Your task to perform on an android device: Go to notification settings Image 0: 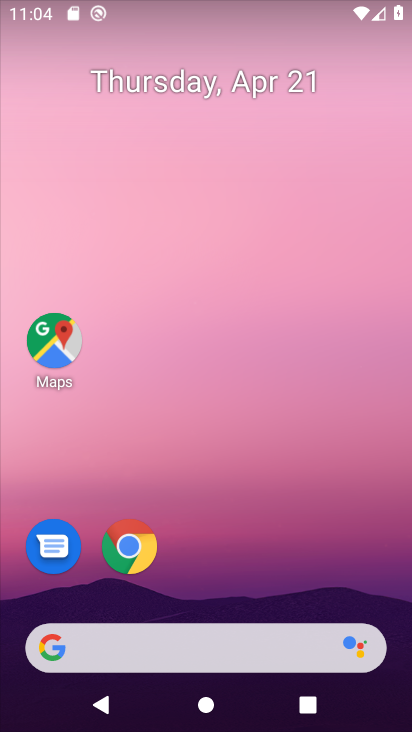
Step 0: drag from (254, 565) to (239, 94)
Your task to perform on an android device: Go to notification settings Image 1: 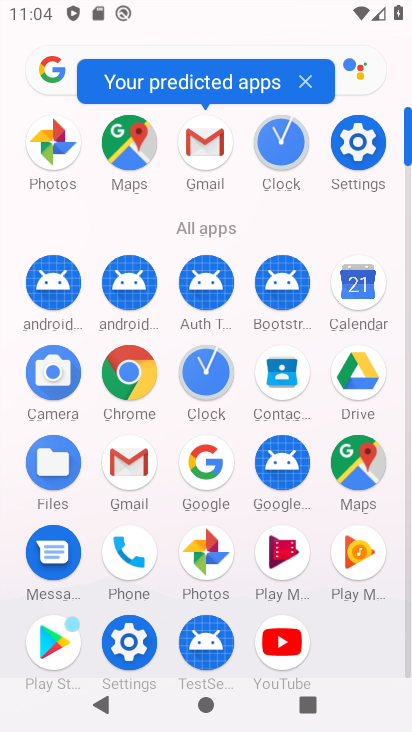
Step 1: click (367, 142)
Your task to perform on an android device: Go to notification settings Image 2: 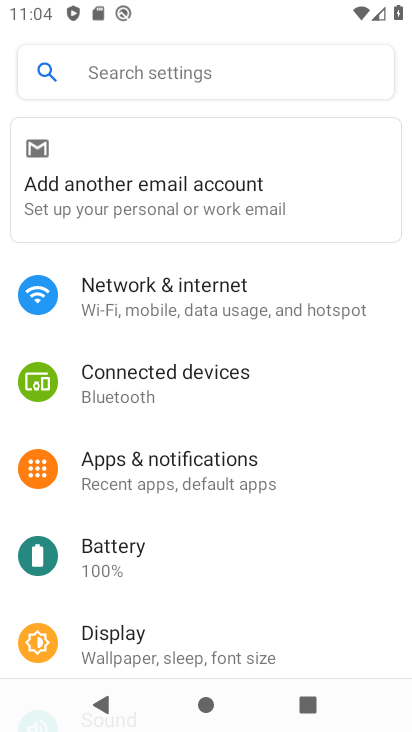
Step 2: drag from (267, 455) to (234, 200)
Your task to perform on an android device: Go to notification settings Image 3: 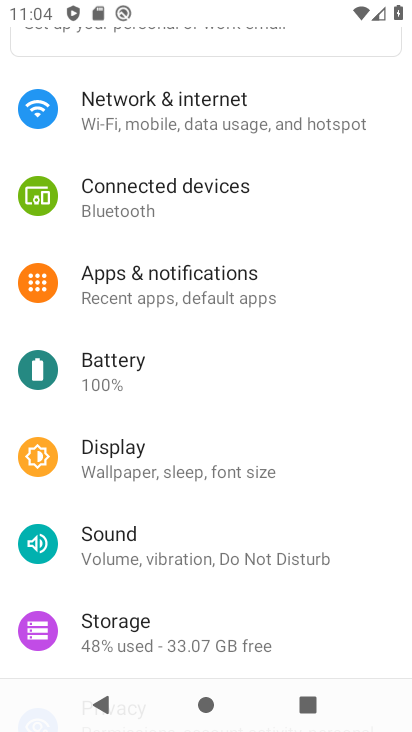
Step 3: drag from (244, 430) to (238, 347)
Your task to perform on an android device: Go to notification settings Image 4: 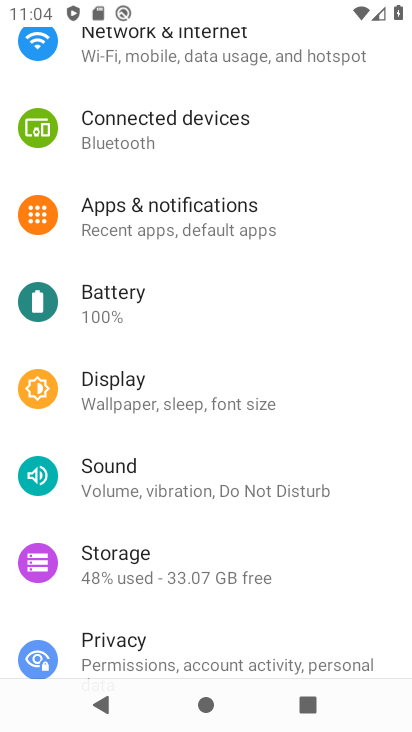
Step 4: click (183, 223)
Your task to perform on an android device: Go to notification settings Image 5: 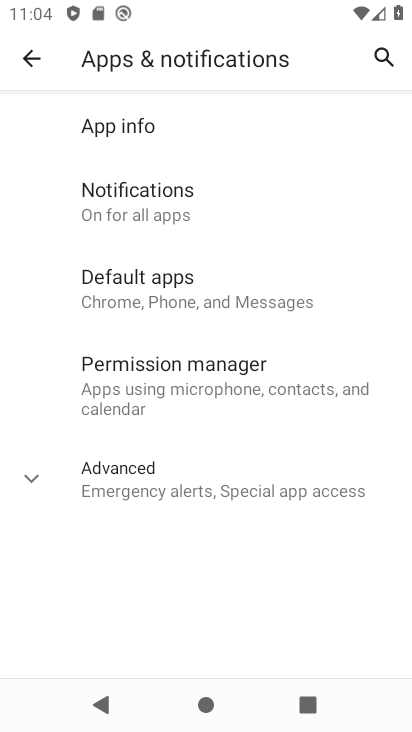
Step 5: click (146, 410)
Your task to perform on an android device: Go to notification settings Image 6: 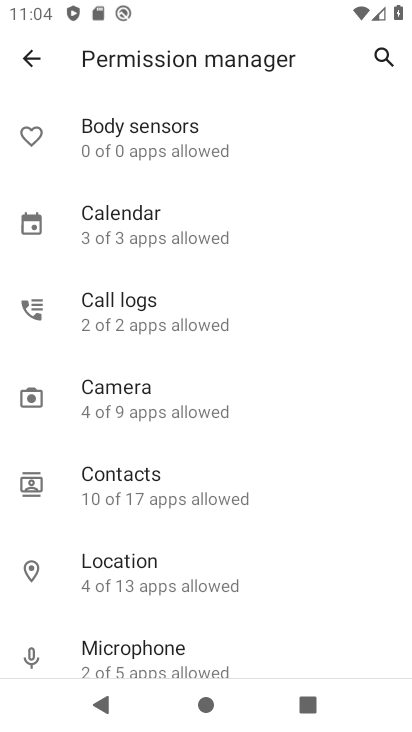
Step 6: press back button
Your task to perform on an android device: Go to notification settings Image 7: 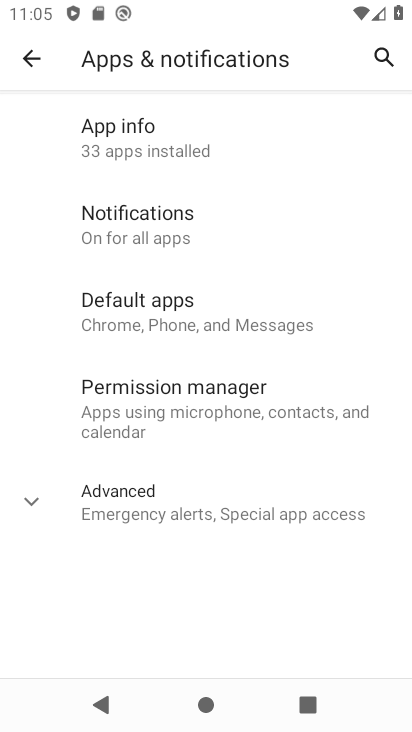
Step 7: click (206, 226)
Your task to perform on an android device: Go to notification settings Image 8: 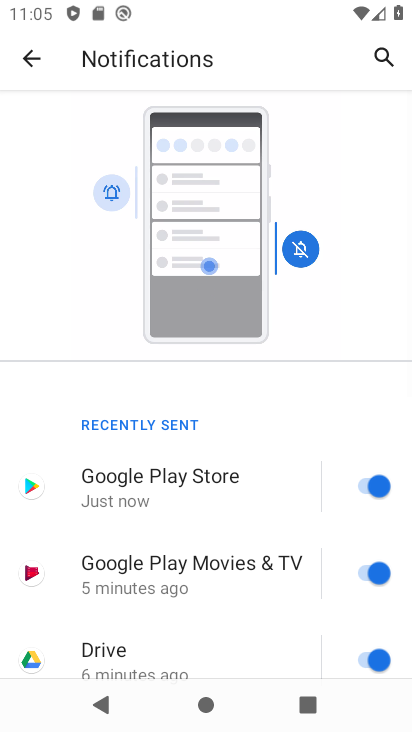
Step 8: task complete